Your task to perform on an android device: toggle javascript in the chrome app Image 0: 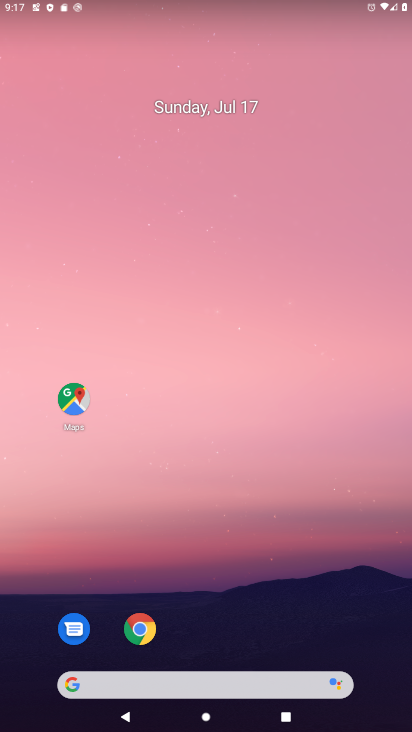
Step 0: drag from (186, 650) to (259, 17)
Your task to perform on an android device: toggle javascript in the chrome app Image 1: 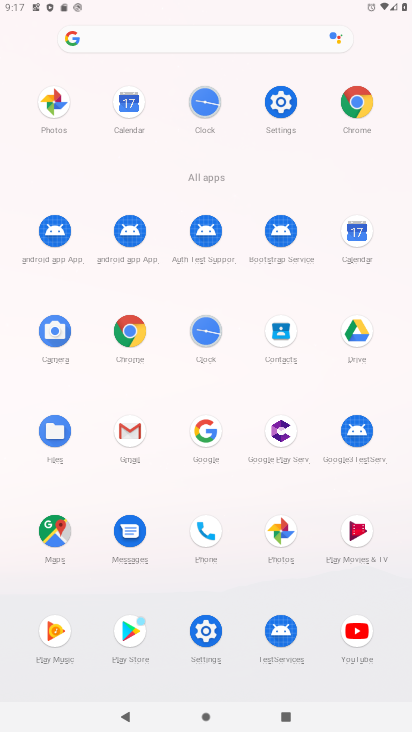
Step 1: click (134, 349)
Your task to perform on an android device: toggle javascript in the chrome app Image 2: 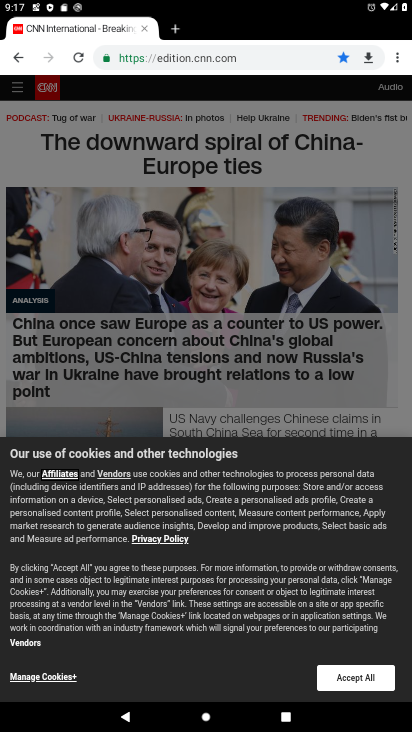
Step 2: click (397, 54)
Your task to perform on an android device: toggle javascript in the chrome app Image 3: 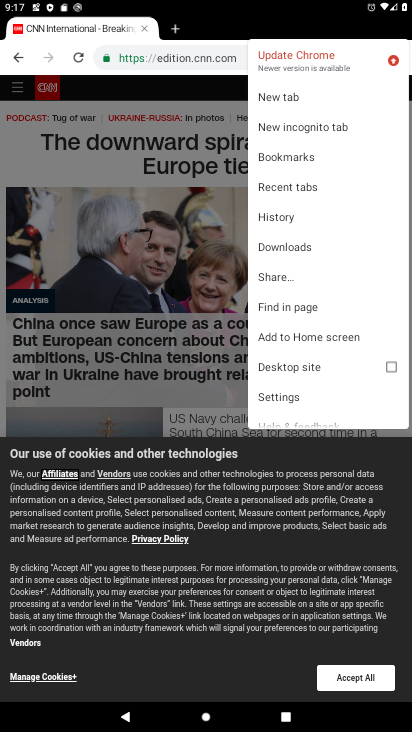
Step 3: click (281, 396)
Your task to perform on an android device: toggle javascript in the chrome app Image 4: 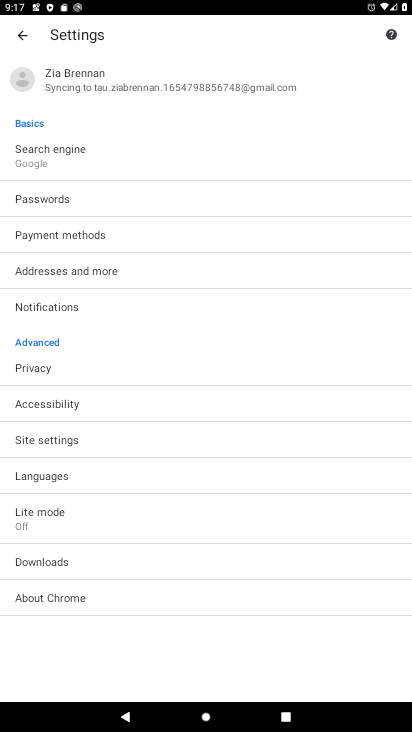
Step 4: click (77, 440)
Your task to perform on an android device: toggle javascript in the chrome app Image 5: 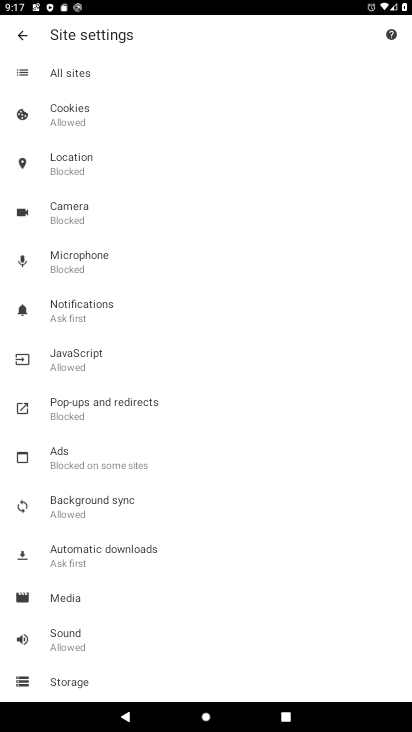
Step 5: click (102, 364)
Your task to perform on an android device: toggle javascript in the chrome app Image 6: 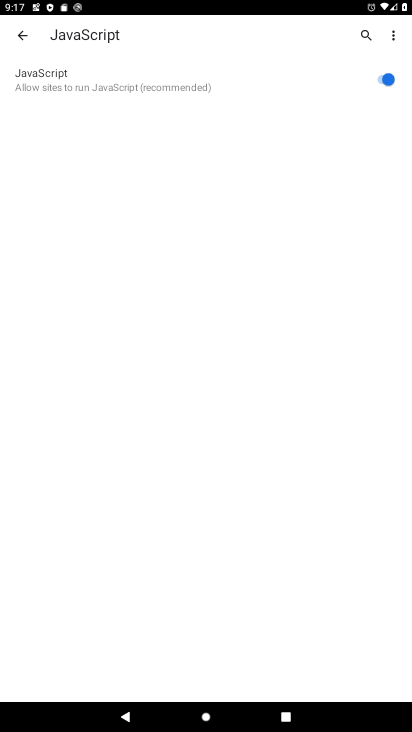
Step 6: click (364, 76)
Your task to perform on an android device: toggle javascript in the chrome app Image 7: 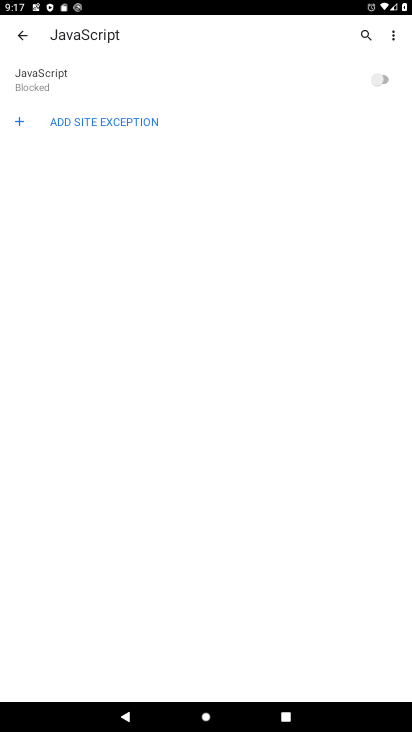
Step 7: task complete